Your task to perform on an android device: turn vacation reply on in the gmail app Image 0: 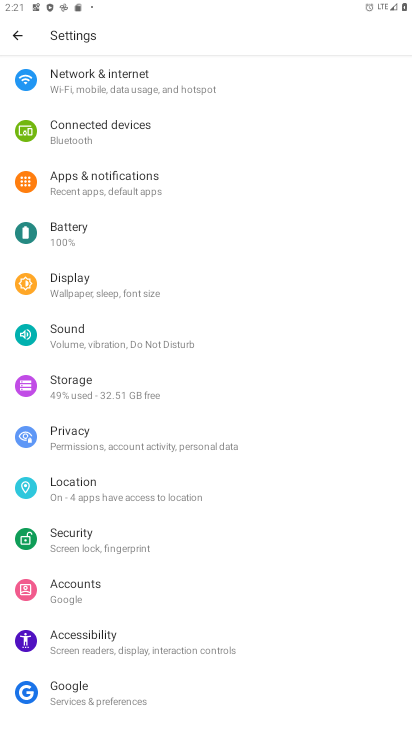
Step 0: press home button
Your task to perform on an android device: turn vacation reply on in the gmail app Image 1: 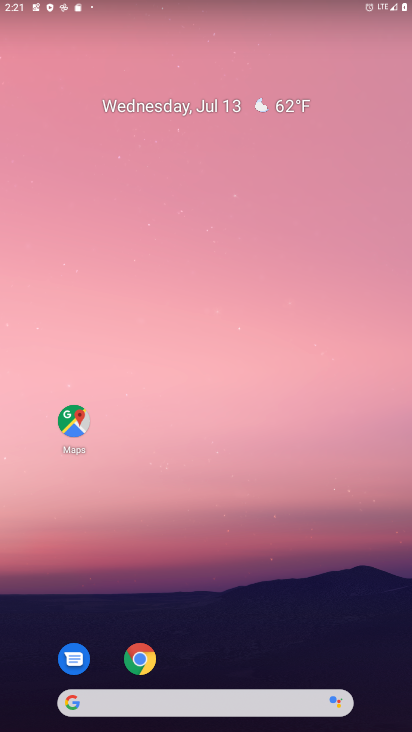
Step 1: drag from (215, 723) to (201, 248)
Your task to perform on an android device: turn vacation reply on in the gmail app Image 2: 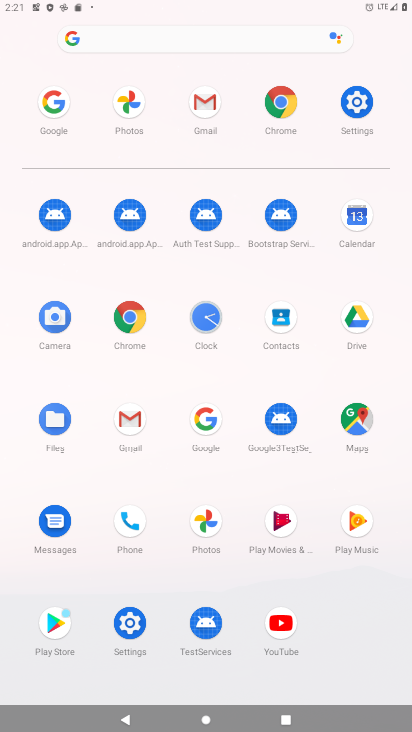
Step 2: click (129, 416)
Your task to perform on an android device: turn vacation reply on in the gmail app Image 3: 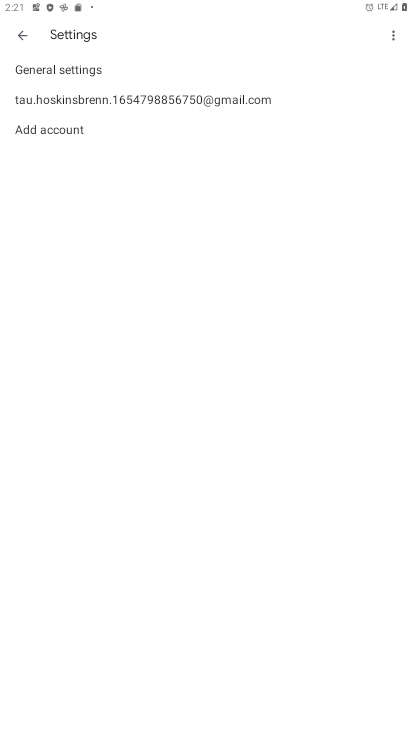
Step 3: click (62, 90)
Your task to perform on an android device: turn vacation reply on in the gmail app Image 4: 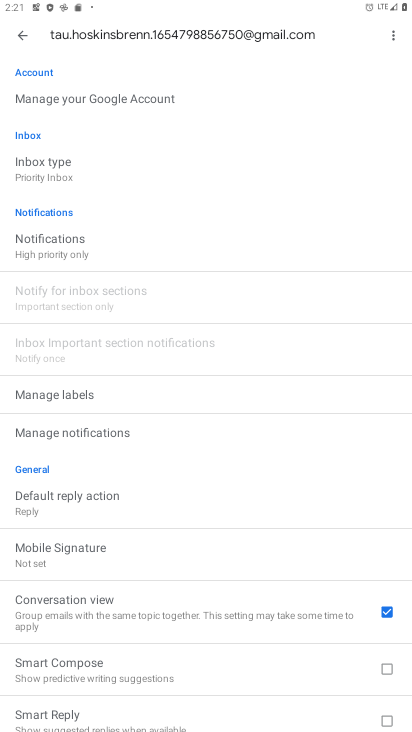
Step 4: drag from (108, 702) to (110, 632)
Your task to perform on an android device: turn vacation reply on in the gmail app Image 5: 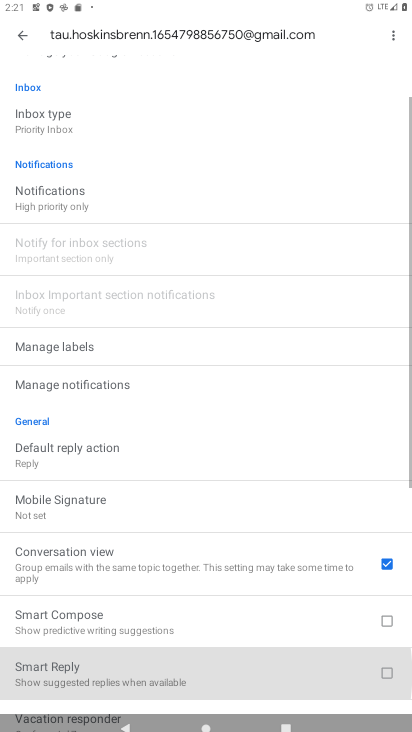
Step 5: click (107, 592)
Your task to perform on an android device: turn vacation reply on in the gmail app Image 6: 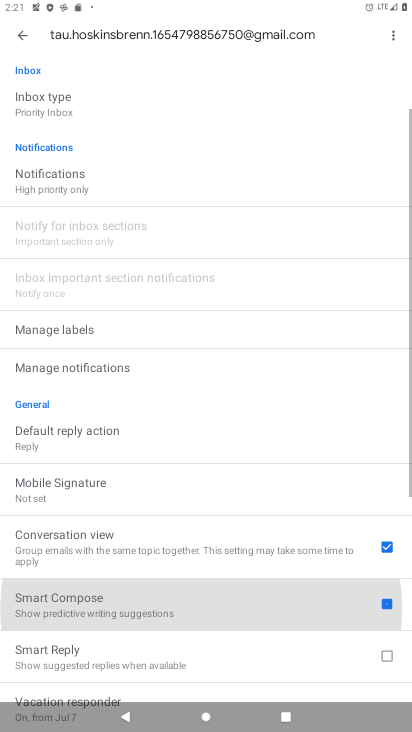
Step 6: drag from (87, 437) to (80, 366)
Your task to perform on an android device: turn vacation reply on in the gmail app Image 7: 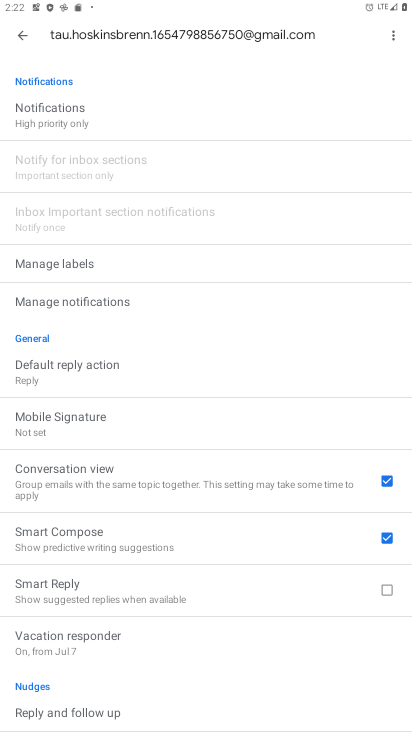
Step 7: click (81, 643)
Your task to perform on an android device: turn vacation reply on in the gmail app Image 8: 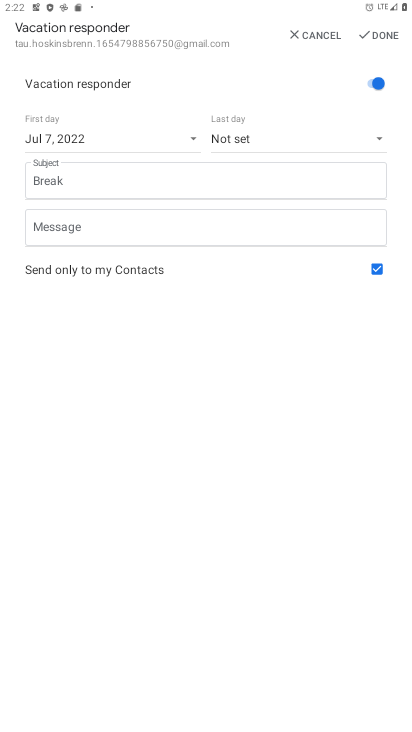
Step 8: task complete